Your task to perform on an android device: Search for apple airpods on target, select the first entry, add it to the cart, then select checkout. Image 0: 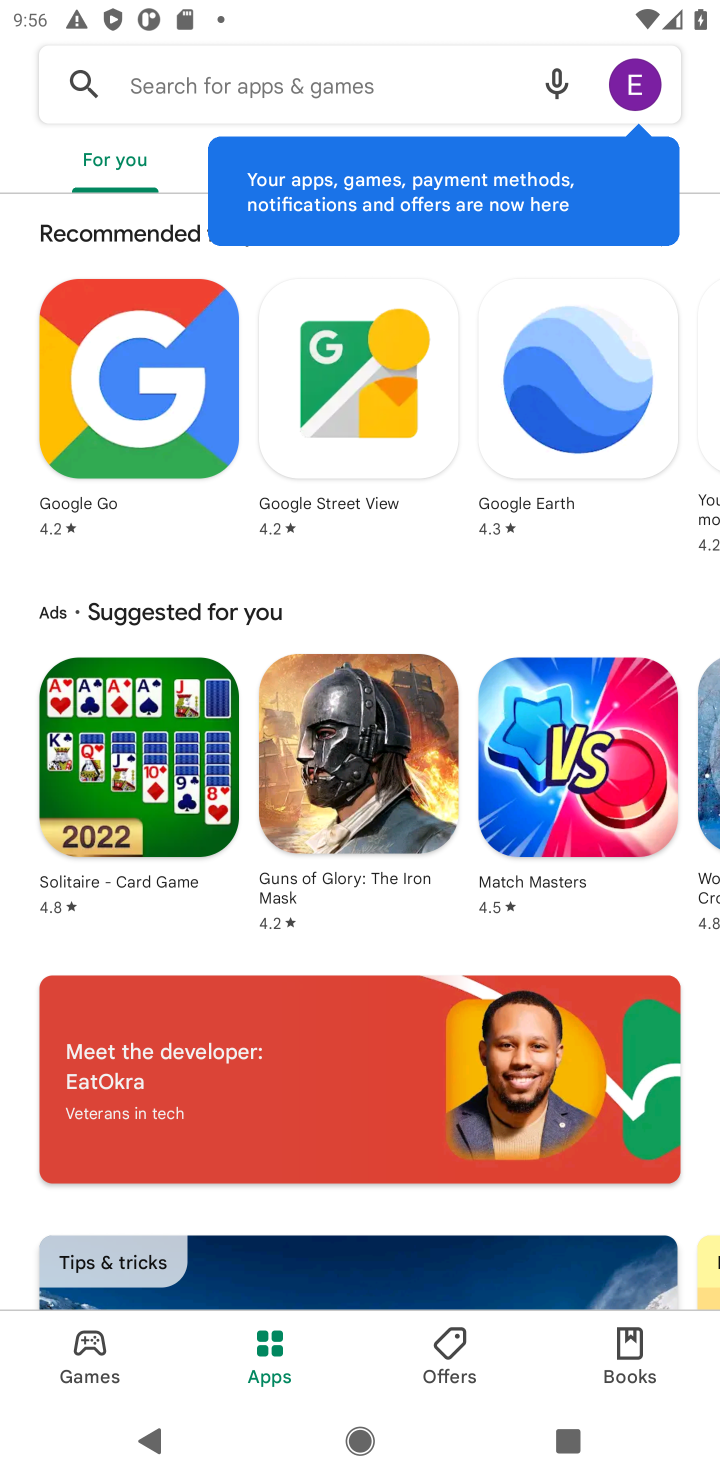
Step 0: press home button
Your task to perform on an android device: Search for apple airpods on target, select the first entry, add it to the cart, then select checkout. Image 1: 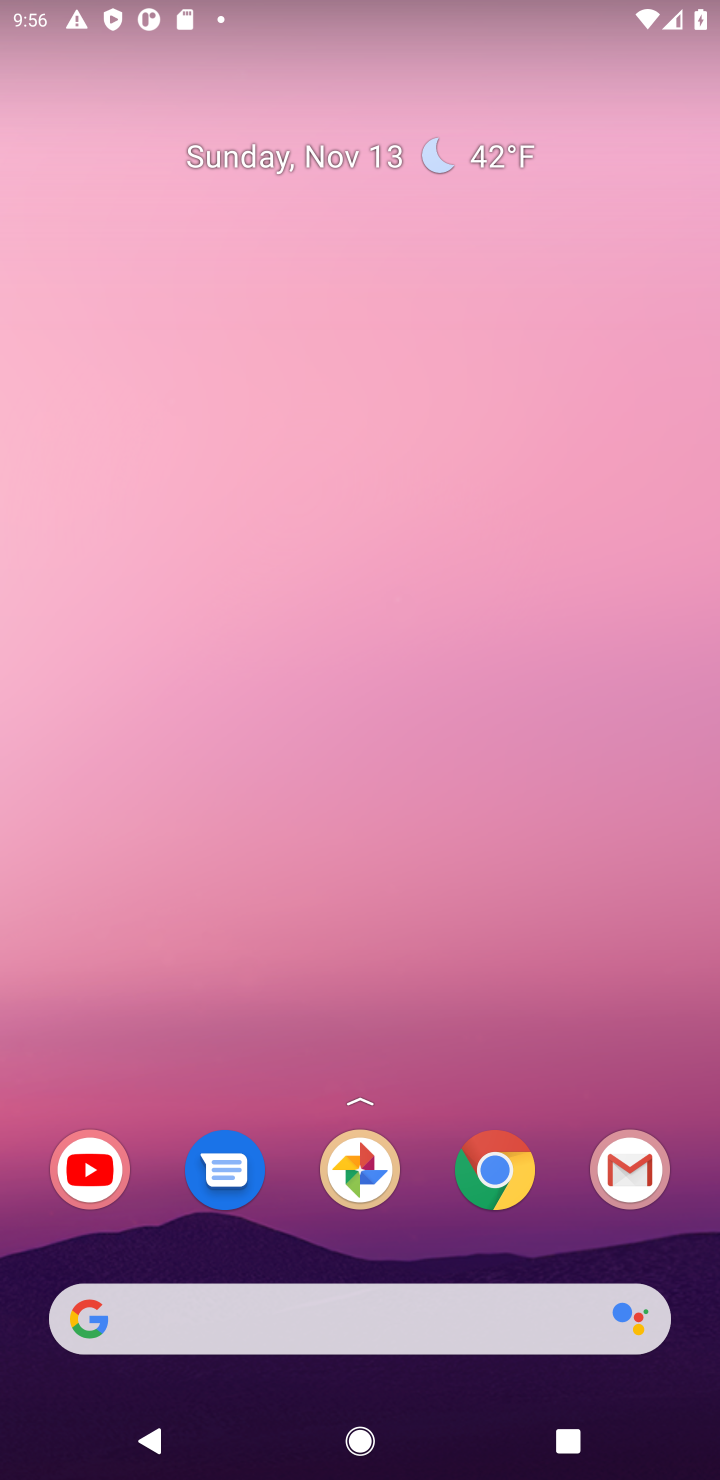
Step 1: drag from (339, 997) to (612, 0)
Your task to perform on an android device: Search for apple airpods on target, select the first entry, add it to the cart, then select checkout. Image 2: 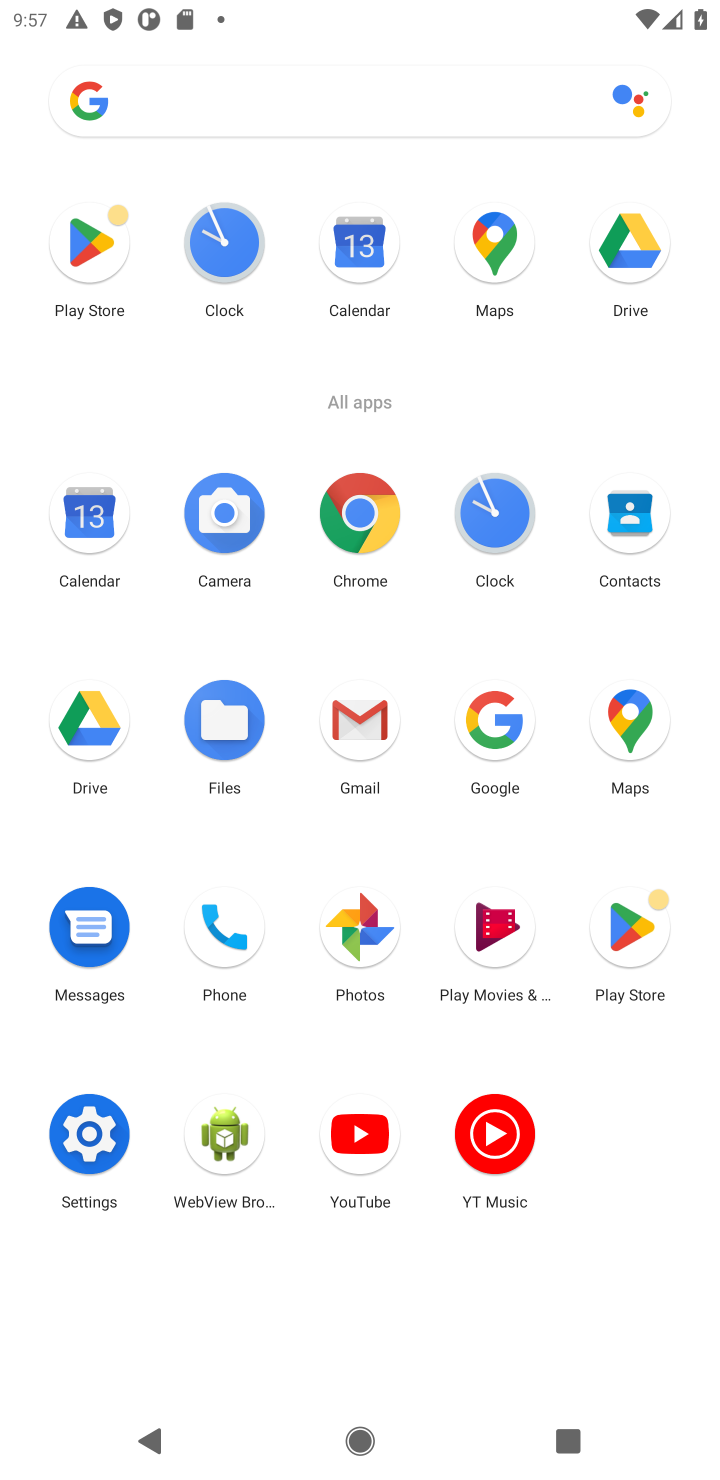
Step 2: click (353, 518)
Your task to perform on an android device: Search for apple airpods on target, select the first entry, add it to the cart, then select checkout. Image 3: 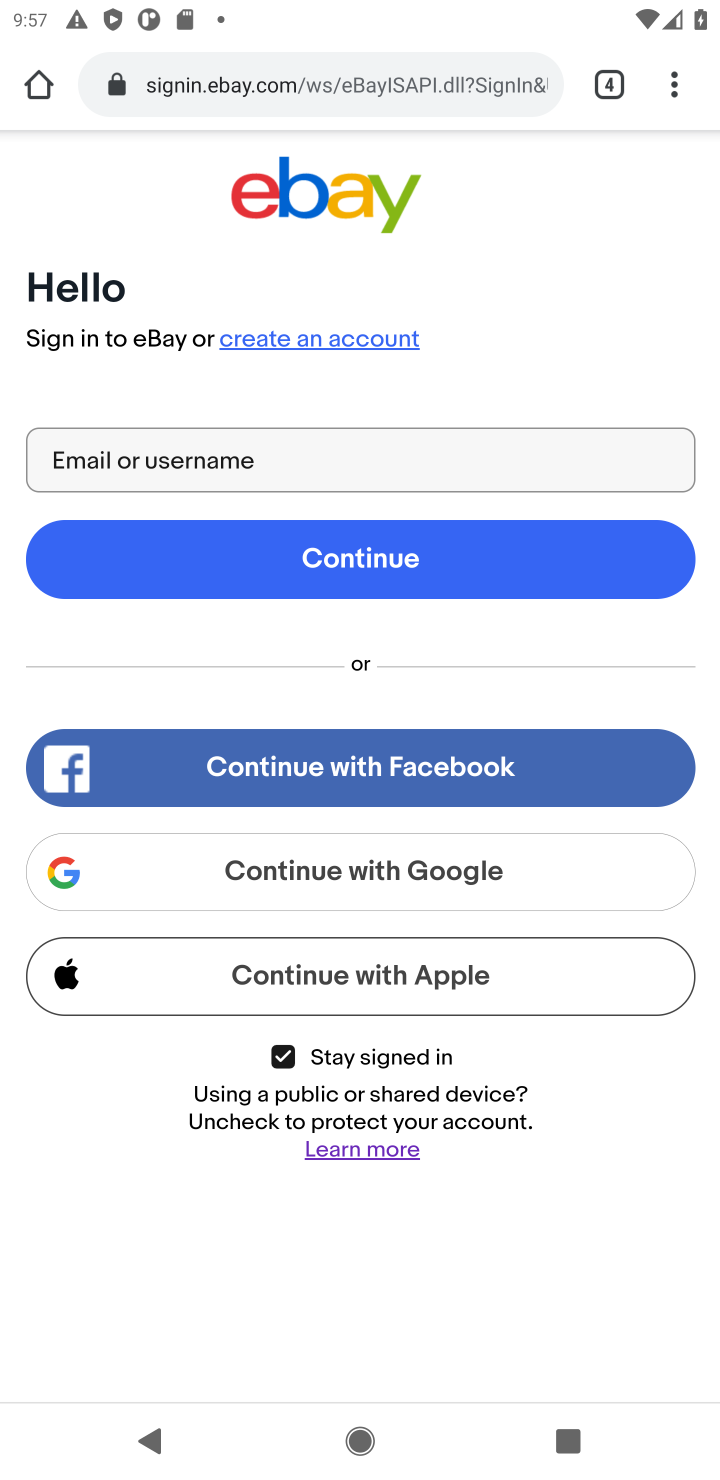
Step 3: click (402, 84)
Your task to perform on an android device: Search for apple airpods on target, select the first entry, add it to the cart, then select checkout. Image 4: 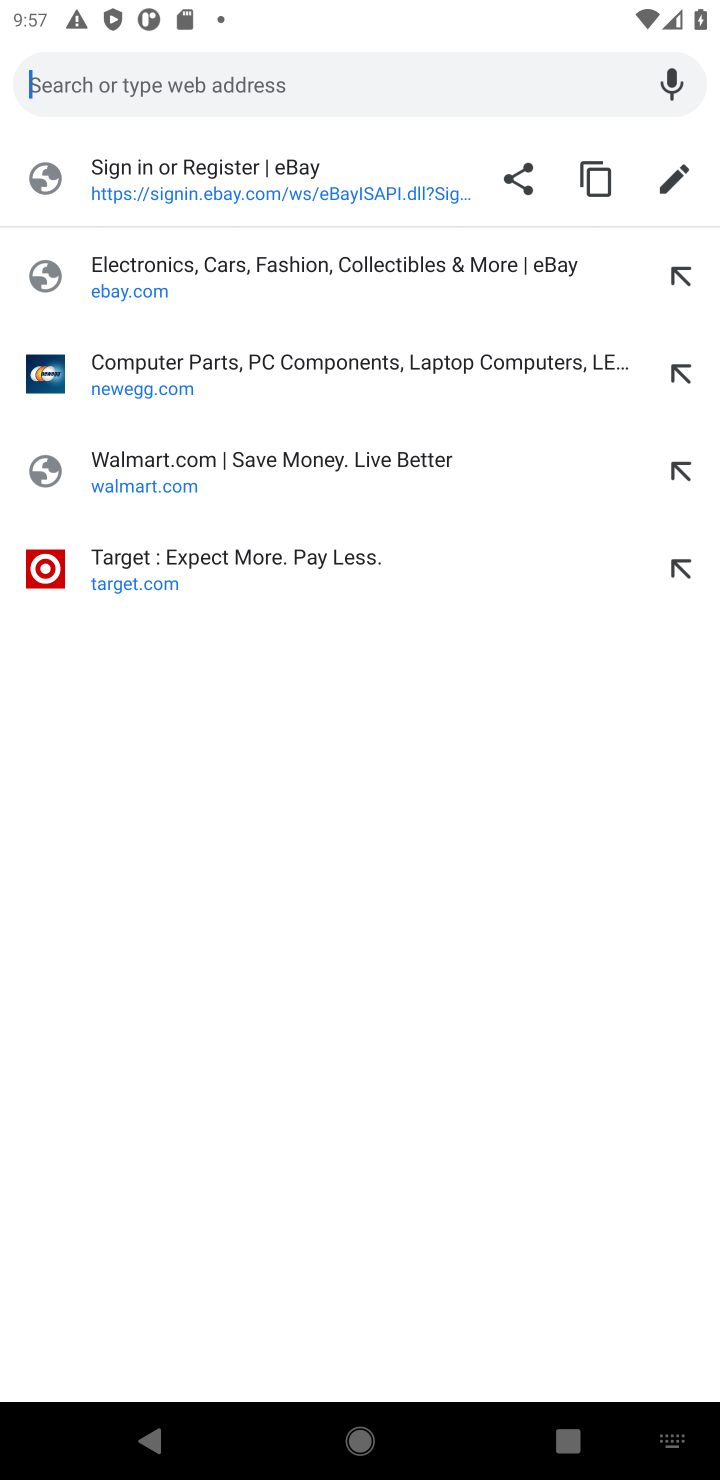
Step 4: type "target"
Your task to perform on an android device: Search for apple airpods on target, select the first entry, add it to the cart, then select checkout. Image 5: 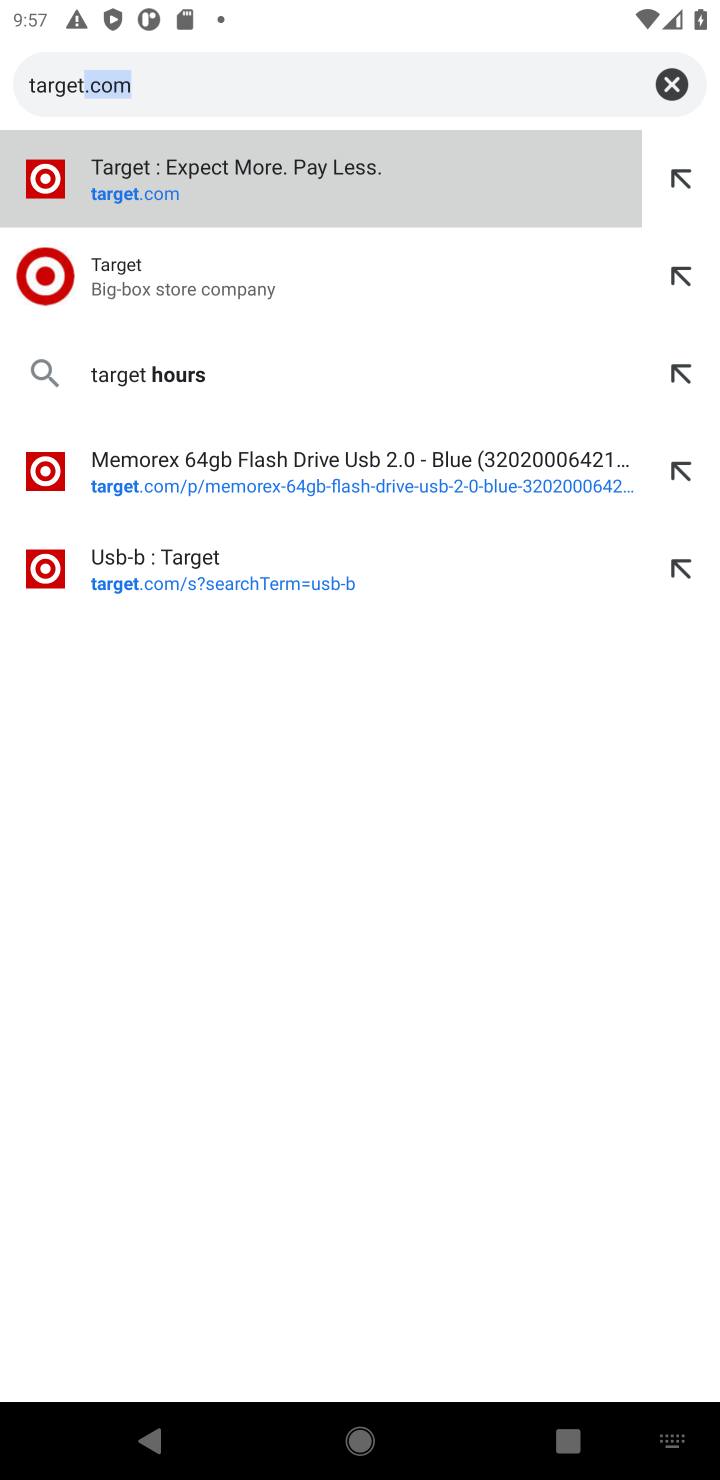
Step 5: press enter
Your task to perform on an android device: Search for apple airpods on target, select the first entry, add it to the cart, then select checkout. Image 6: 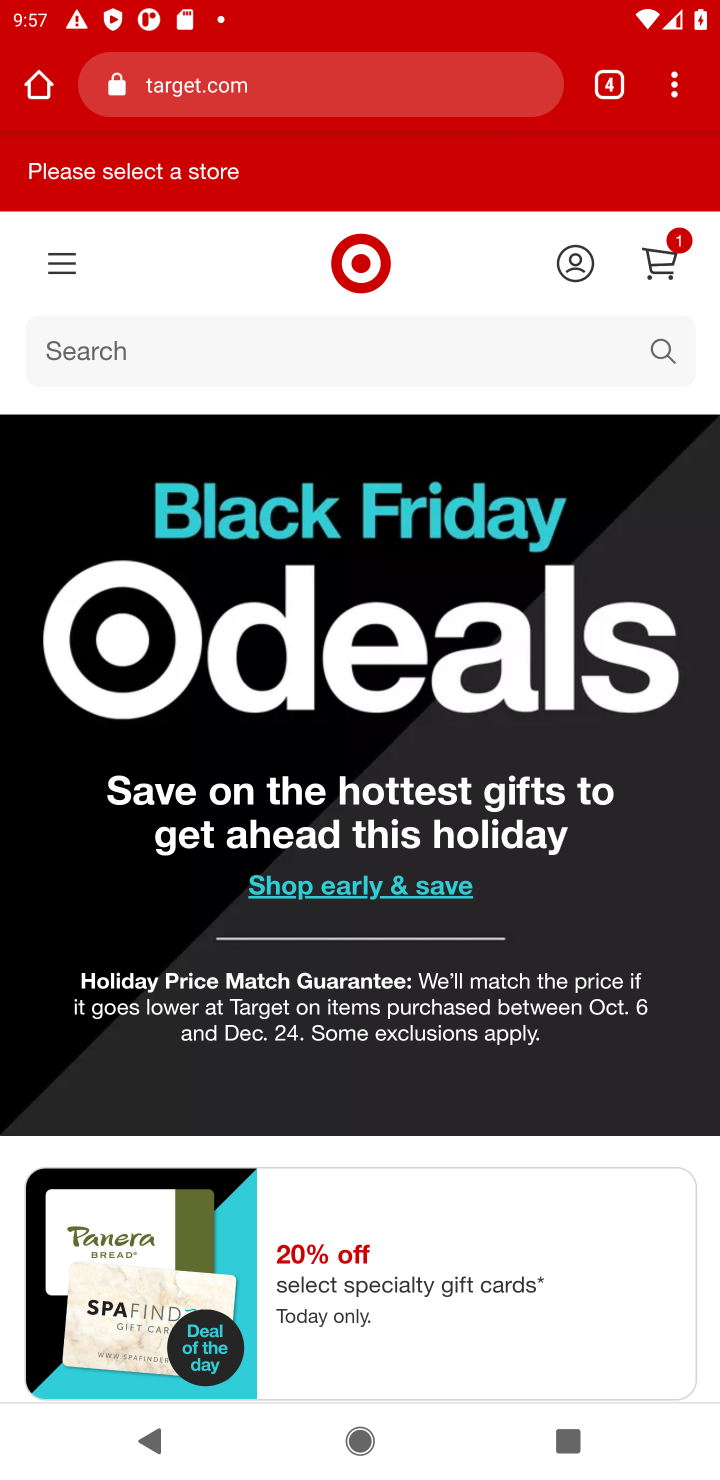
Step 6: click (180, 362)
Your task to perform on an android device: Search for apple airpods on target, select the first entry, add it to the cart, then select checkout. Image 7: 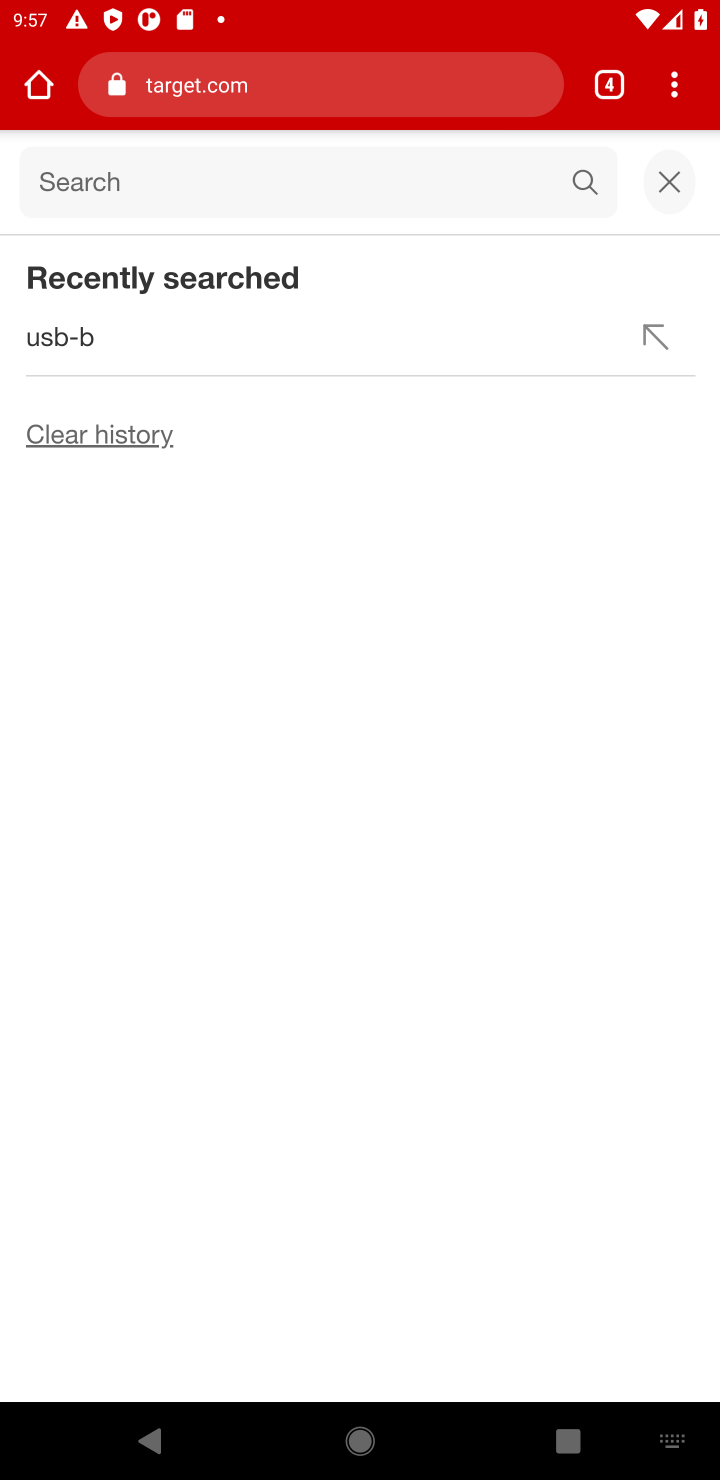
Step 7: type "apple airpods"
Your task to perform on an android device: Search for apple airpods on target, select the first entry, add it to the cart, then select checkout. Image 8: 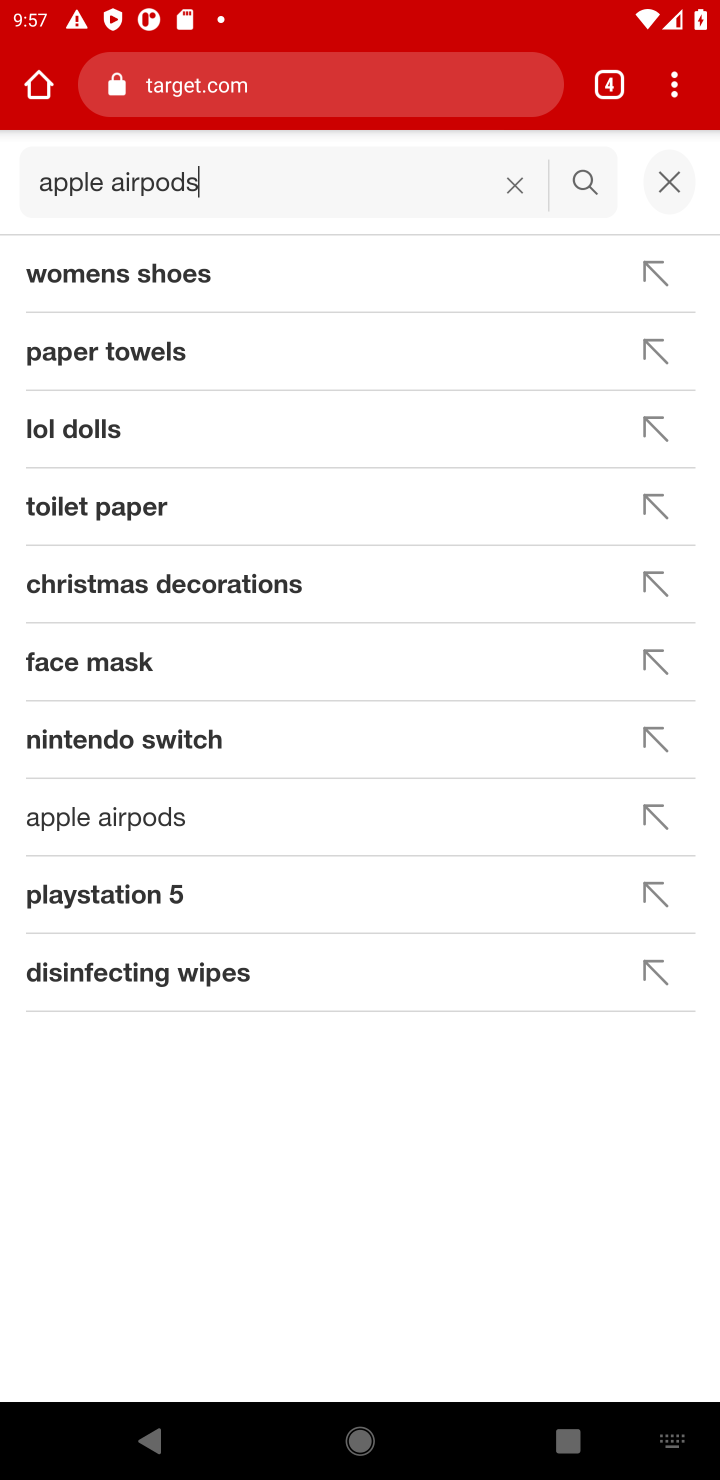
Step 8: press enter
Your task to perform on an android device: Search for apple airpods on target, select the first entry, add it to the cart, then select checkout. Image 9: 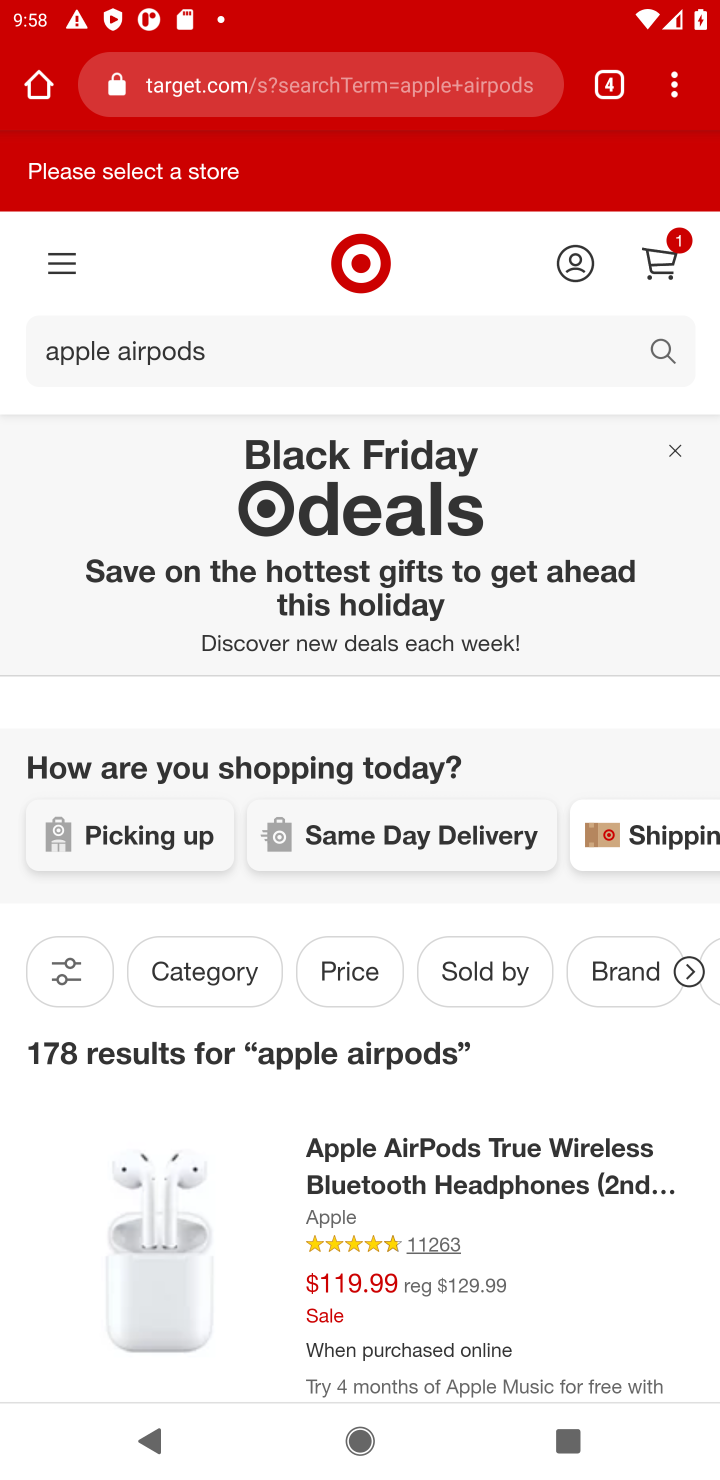
Step 9: drag from (261, 1034) to (348, 261)
Your task to perform on an android device: Search for apple airpods on target, select the first entry, add it to the cart, then select checkout. Image 10: 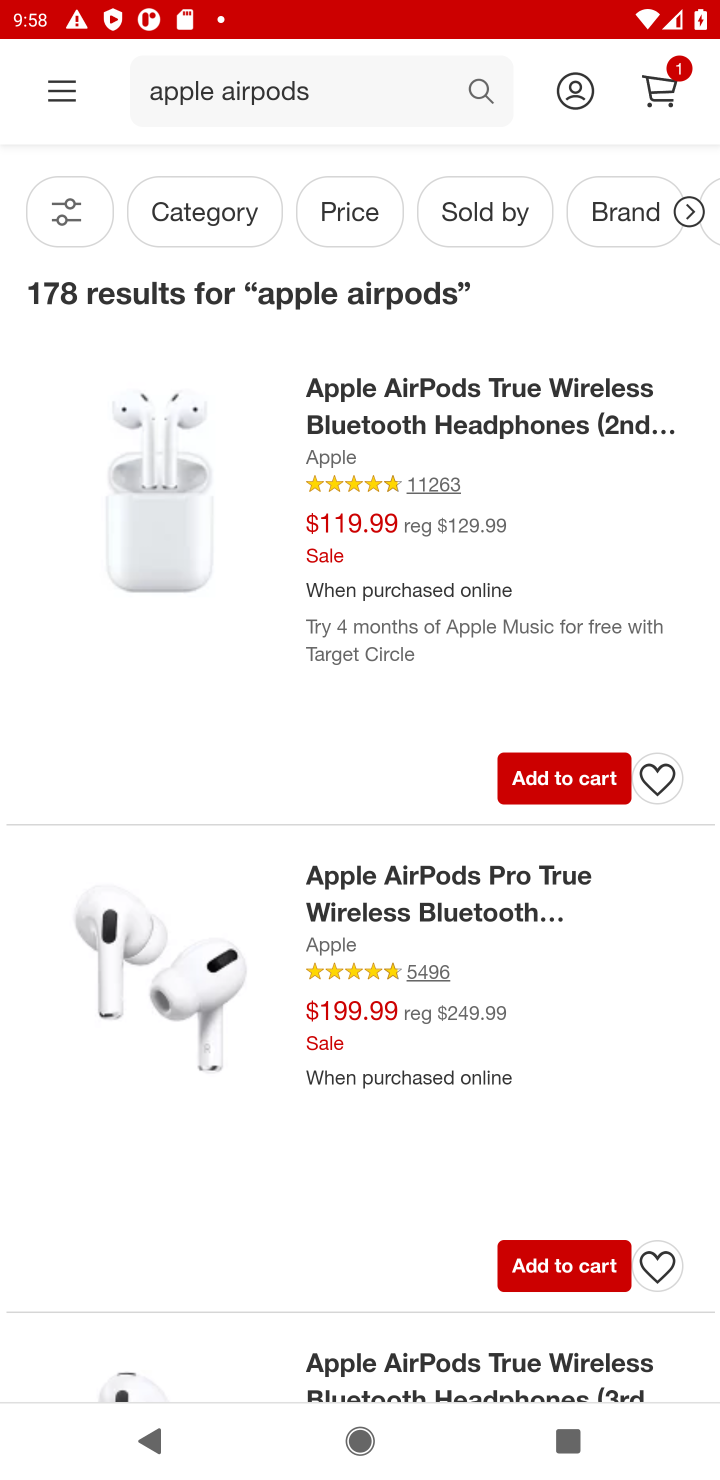
Step 10: click (546, 766)
Your task to perform on an android device: Search for apple airpods on target, select the first entry, add it to the cart, then select checkout. Image 11: 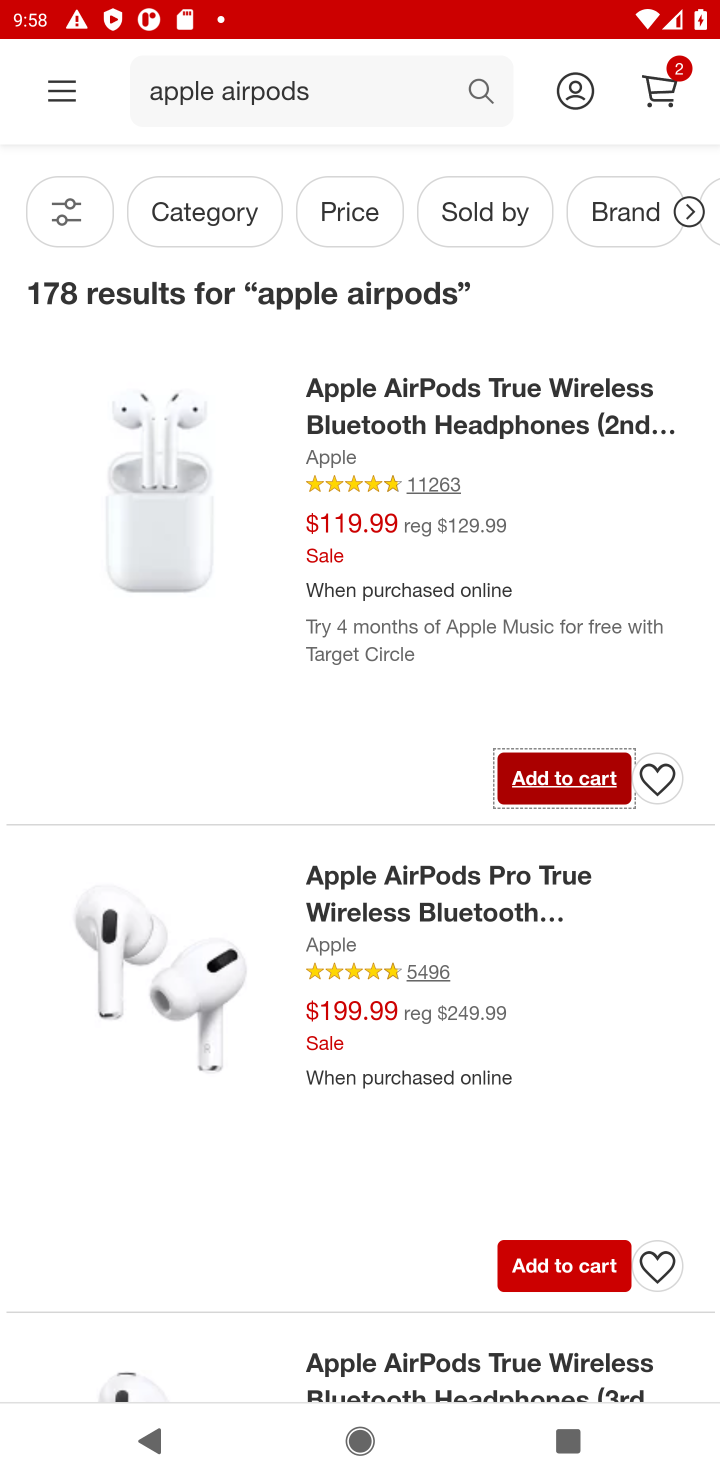
Step 11: click (671, 80)
Your task to perform on an android device: Search for apple airpods on target, select the first entry, add it to the cart, then select checkout. Image 12: 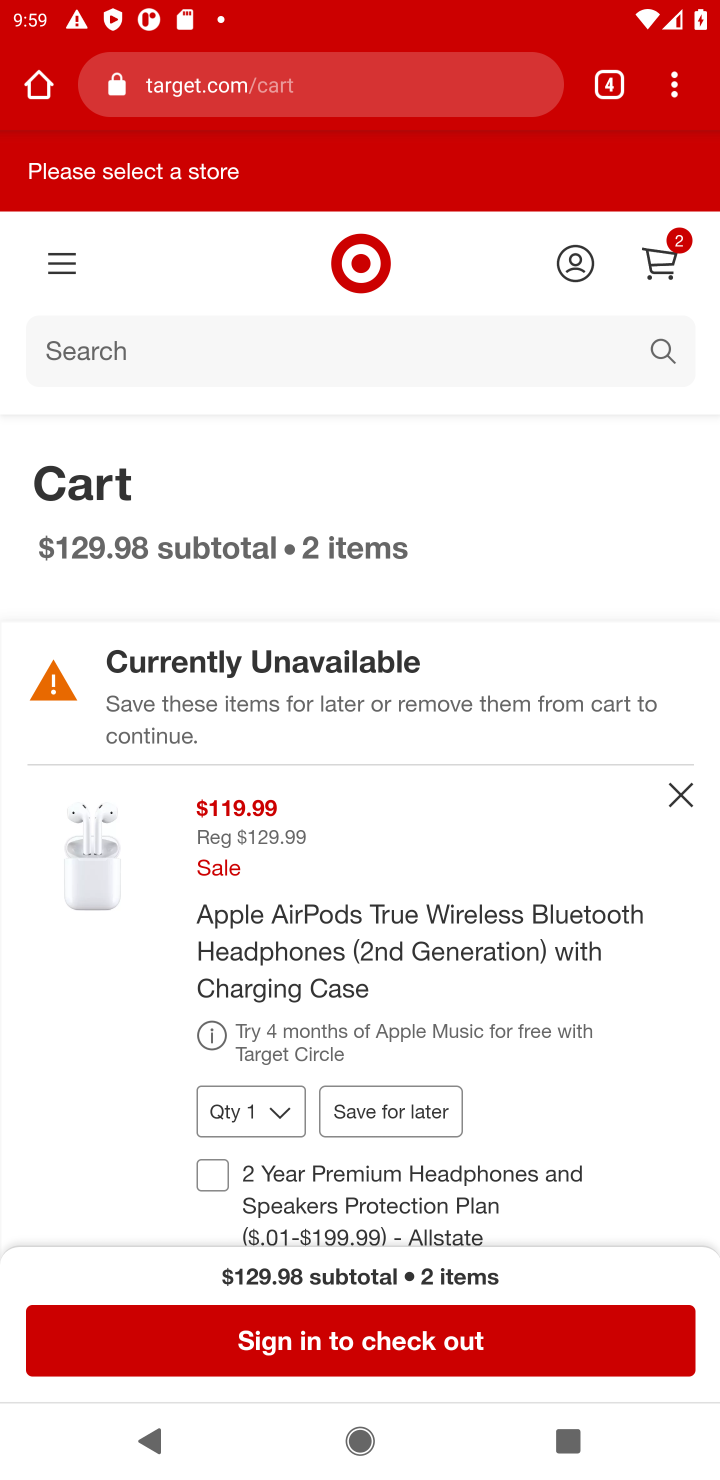
Step 12: click (429, 1344)
Your task to perform on an android device: Search for apple airpods on target, select the first entry, add it to the cart, then select checkout. Image 13: 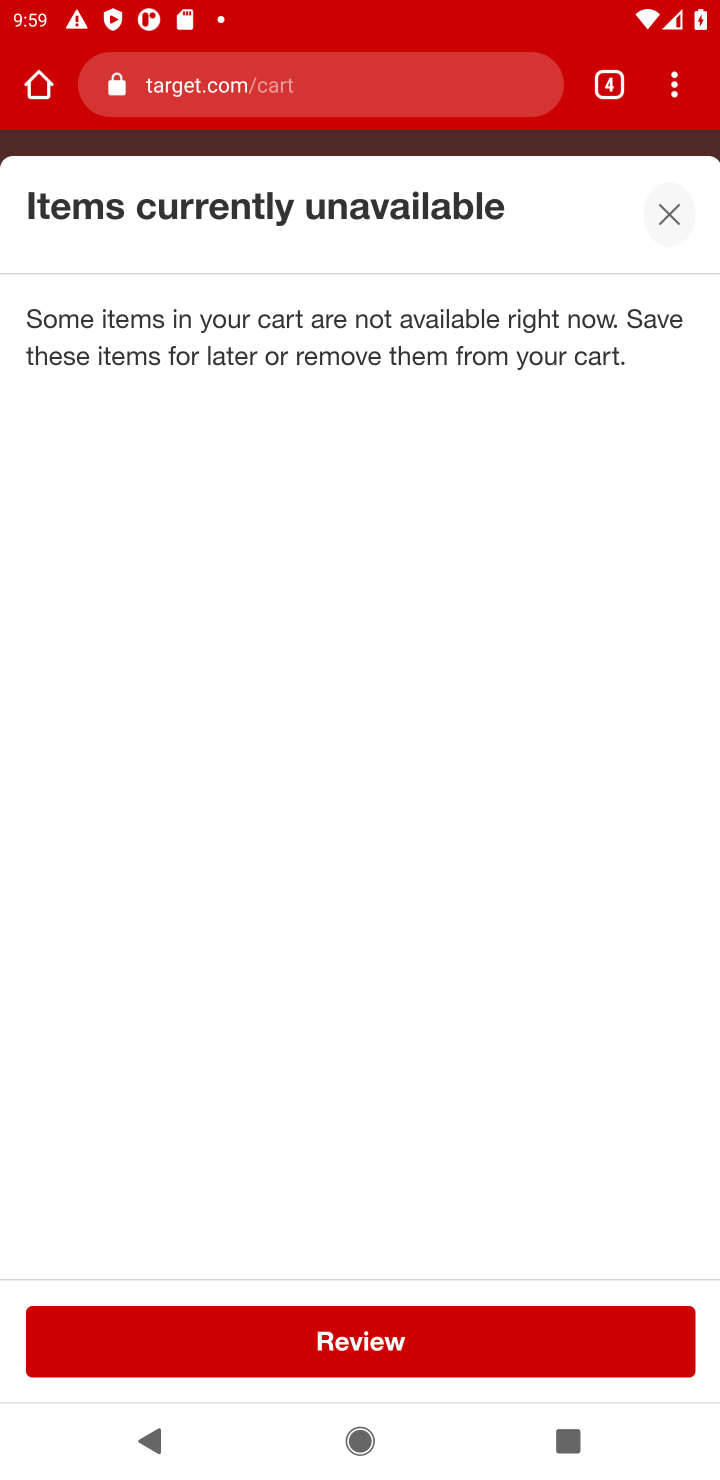
Step 13: task complete